Your task to perform on an android device: Open eBay Image 0: 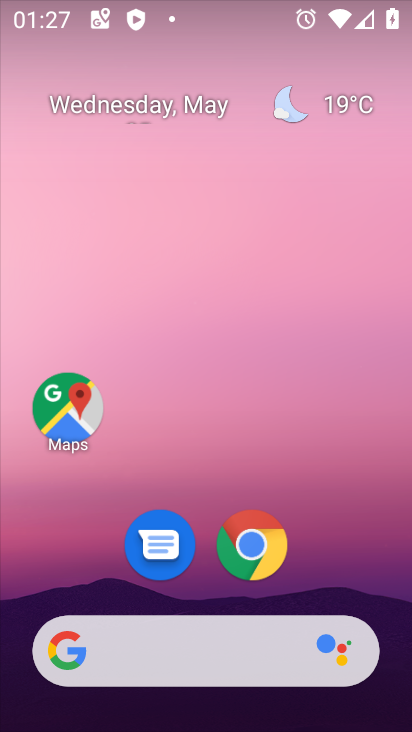
Step 0: click (252, 548)
Your task to perform on an android device: Open eBay Image 1: 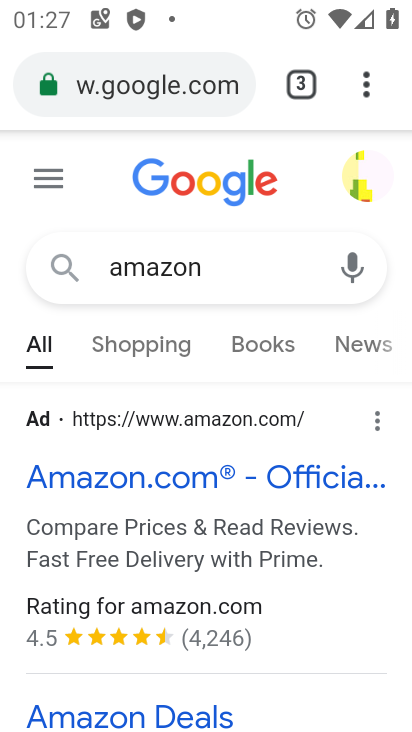
Step 1: click (178, 98)
Your task to perform on an android device: Open eBay Image 2: 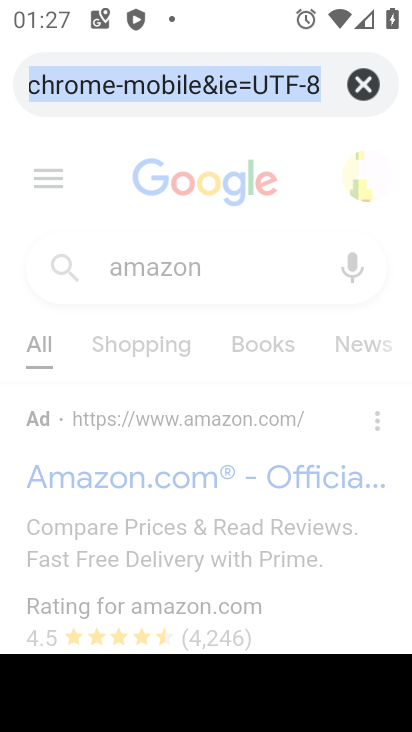
Step 2: type "ebay"
Your task to perform on an android device: Open eBay Image 3: 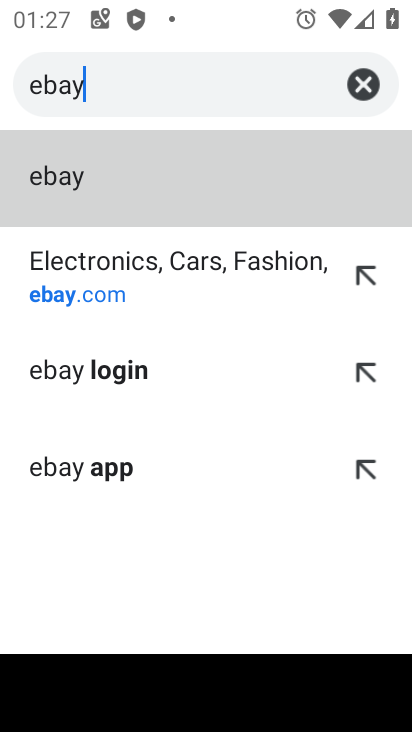
Step 3: click (50, 296)
Your task to perform on an android device: Open eBay Image 4: 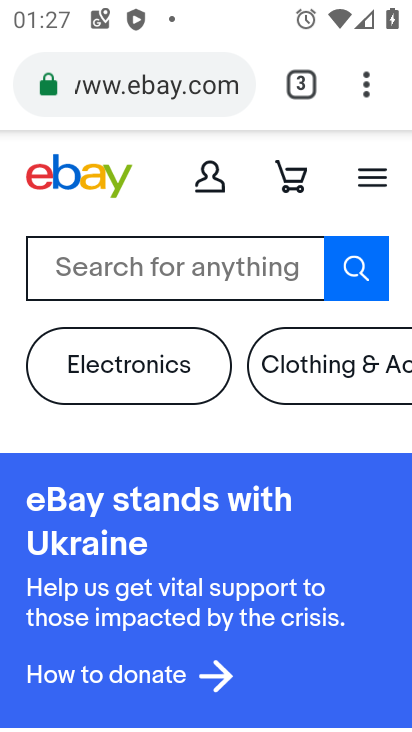
Step 4: task complete